Your task to perform on an android device: change the clock display to digital Image 0: 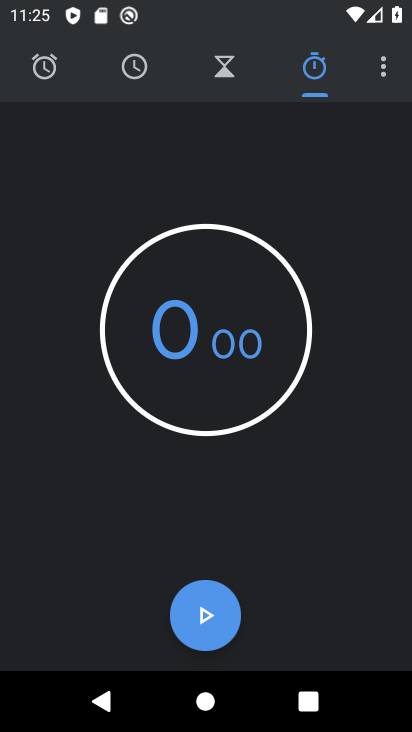
Step 0: click (141, 68)
Your task to perform on an android device: change the clock display to digital Image 1: 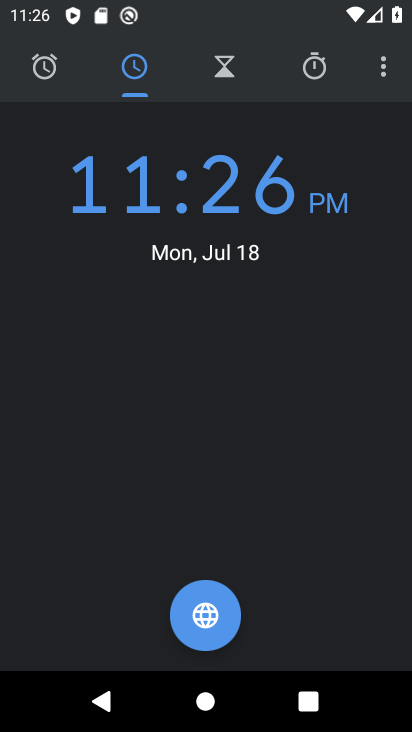
Step 1: task complete